Your task to perform on an android device: allow cookies in the chrome app Image 0: 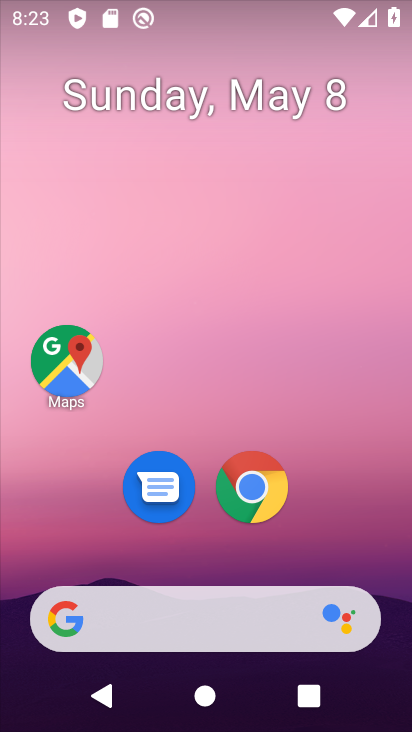
Step 0: click (258, 498)
Your task to perform on an android device: allow cookies in the chrome app Image 1: 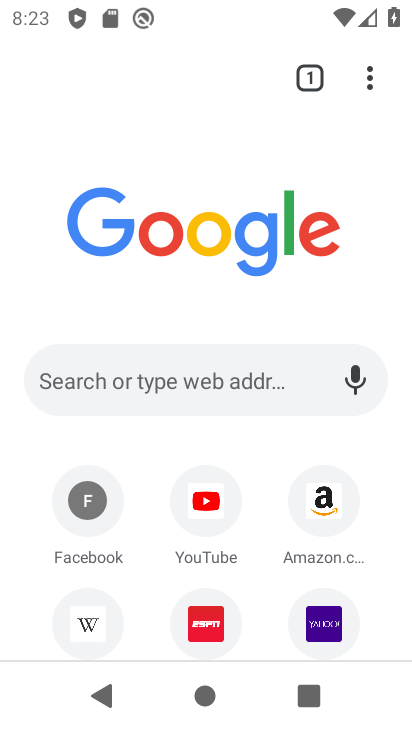
Step 1: drag from (376, 75) to (150, 582)
Your task to perform on an android device: allow cookies in the chrome app Image 2: 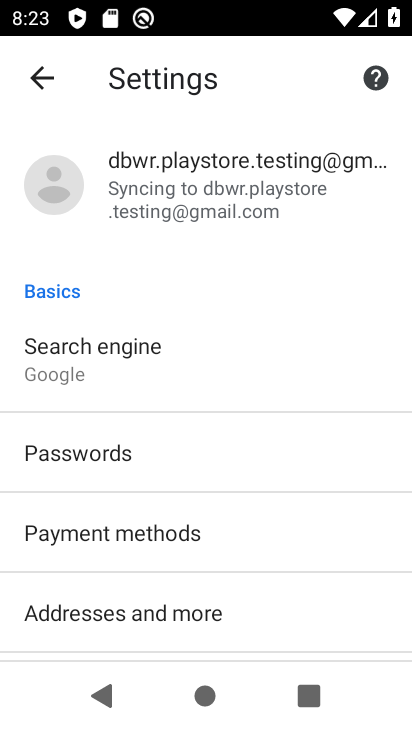
Step 2: drag from (153, 581) to (211, 368)
Your task to perform on an android device: allow cookies in the chrome app Image 3: 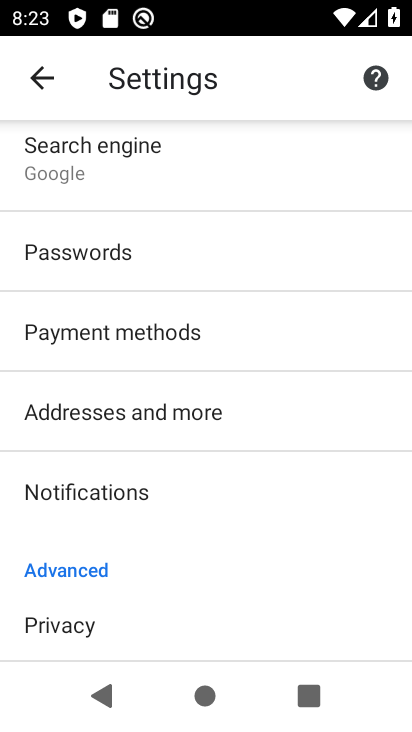
Step 3: drag from (152, 594) to (202, 261)
Your task to perform on an android device: allow cookies in the chrome app Image 4: 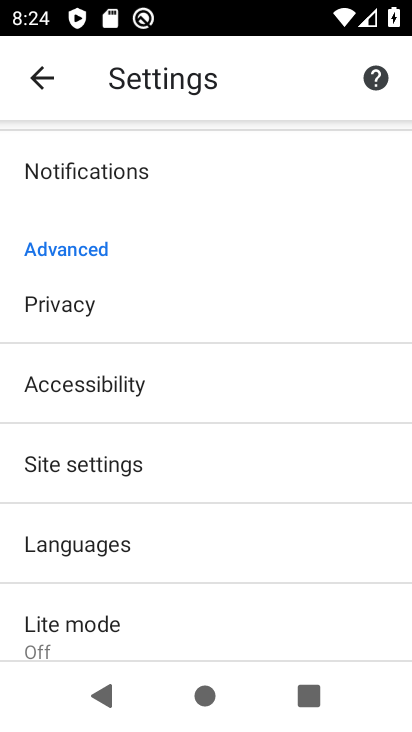
Step 4: click (116, 473)
Your task to perform on an android device: allow cookies in the chrome app Image 5: 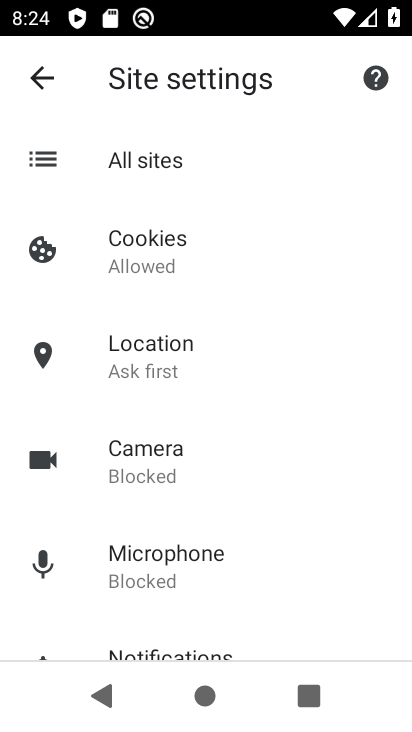
Step 5: click (186, 253)
Your task to perform on an android device: allow cookies in the chrome app Image 6: 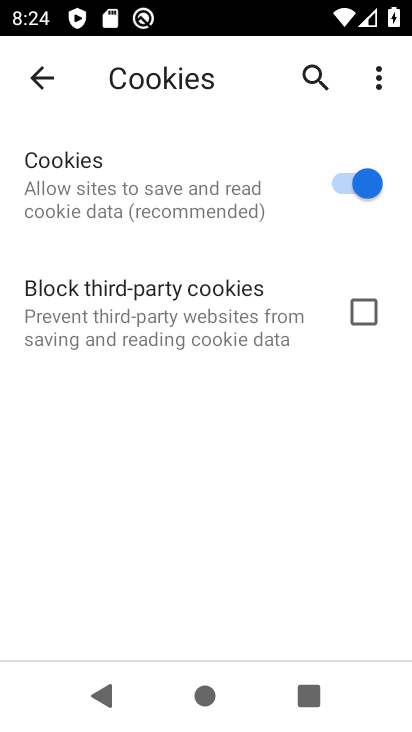
Step 6: task complete